Your task to perform on an android device: View the shopping cart on walmart. Search for razer blade on walmart, select the first entry, add it to the cart, then select checkout. Image 0: 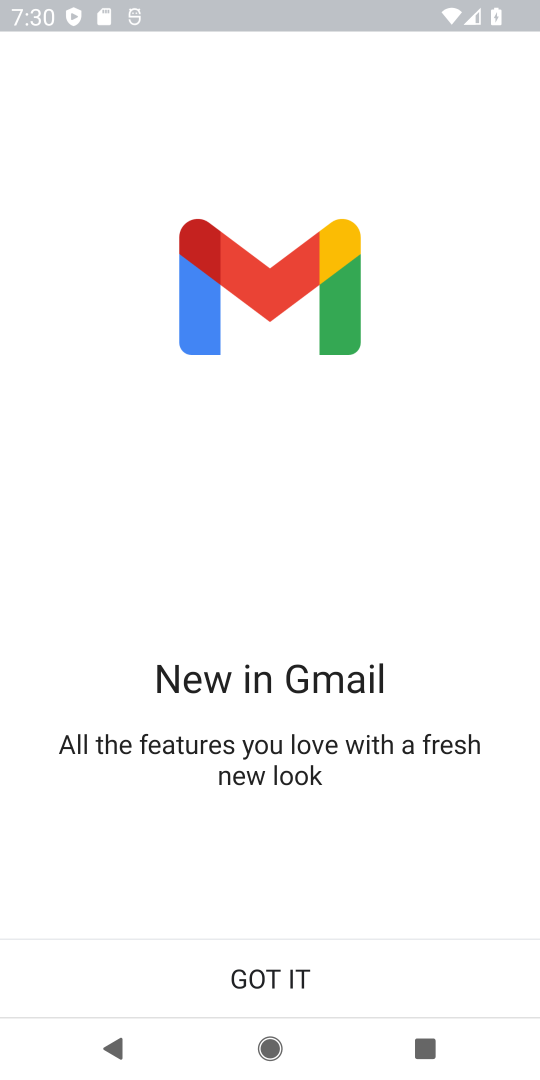
Step 0: press home button
Your task to perform on an android device: View the shopping cart on walmart. Search for razer blade on walmart, select the first entry, add it to the cart, then select checkout. Image 1: 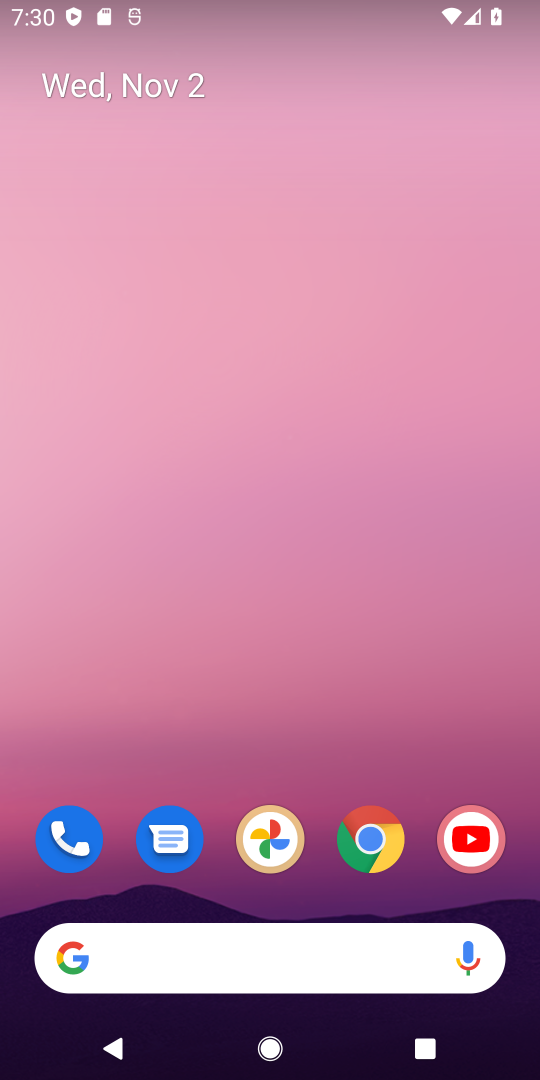
Step 1: click (373, 838)
Your task to perform on an android device: View the shopping cart on walmart. Search for razer blade on walmart, select the first entry, add it to the cart, then select checkout. Image 2: 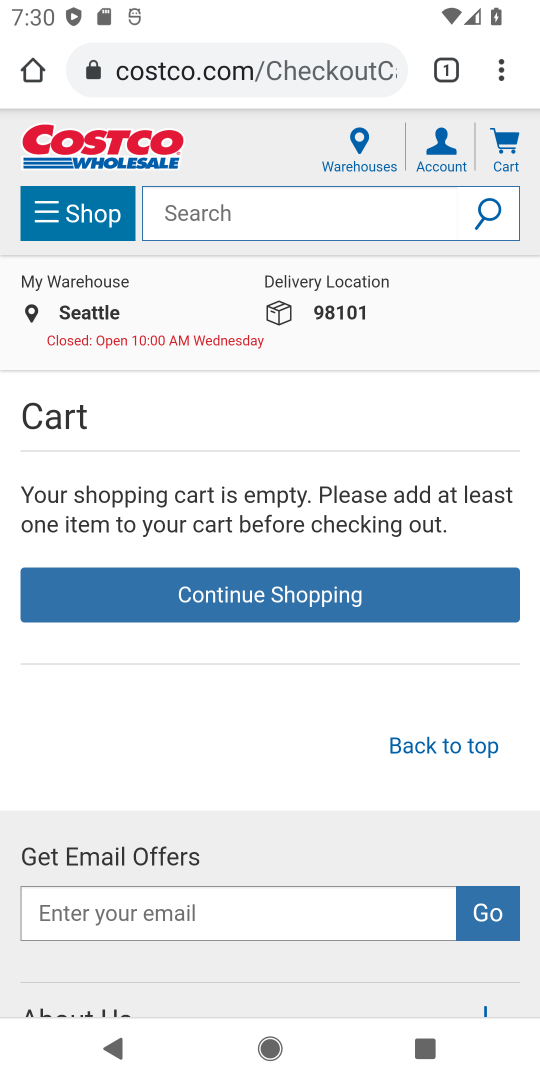
Step 2: click (244, 75)
Your task to perform on an android device: View the shopping cart on walmart. Search for razer blade on walmart, select the first entry, add it to the cart, then select checkout. Image 3: 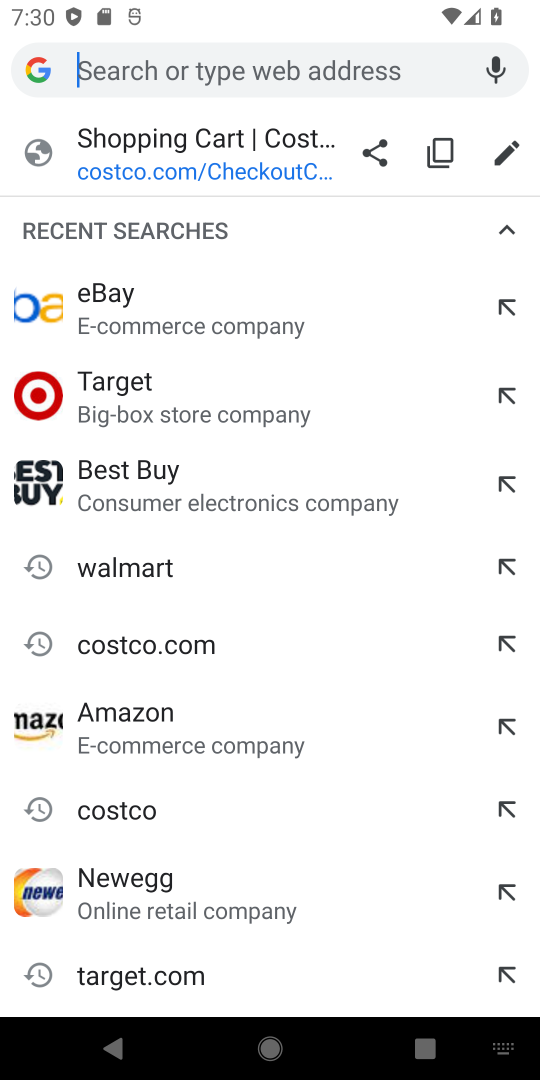
Step 3: type "walmart"
Your task to perform on an android device: View the shopping cart on walmart. Search for razer blade on walmart, select the first entry, add it to the cart, then select checkout. Image 4: 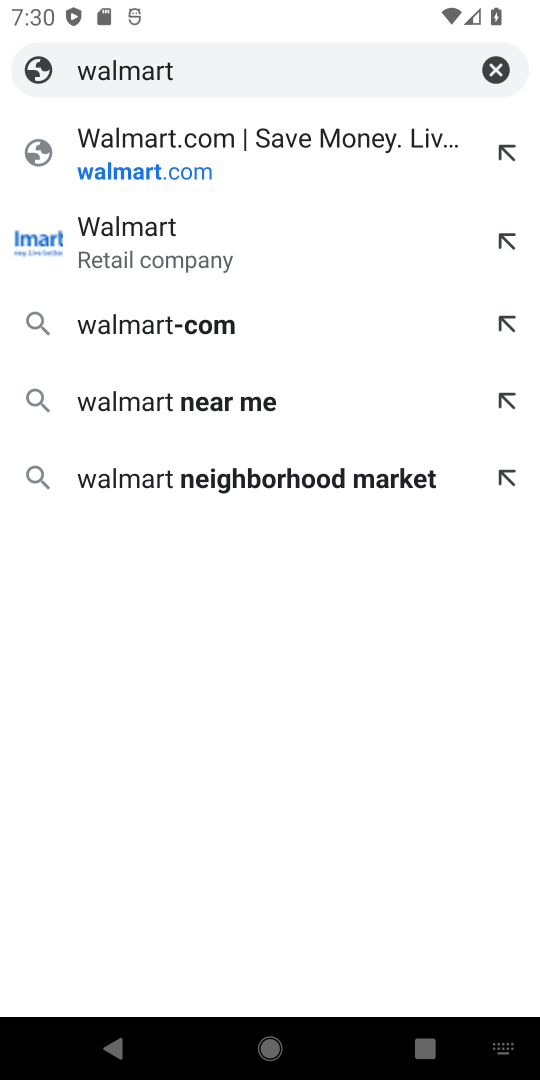
Step 4: click (228, 235)
Your task to perform on an android device: View the shopping cart on walmart. Search for razer blade on walmart, select the first entry, add it to the cart, then select checkout. Image 5: 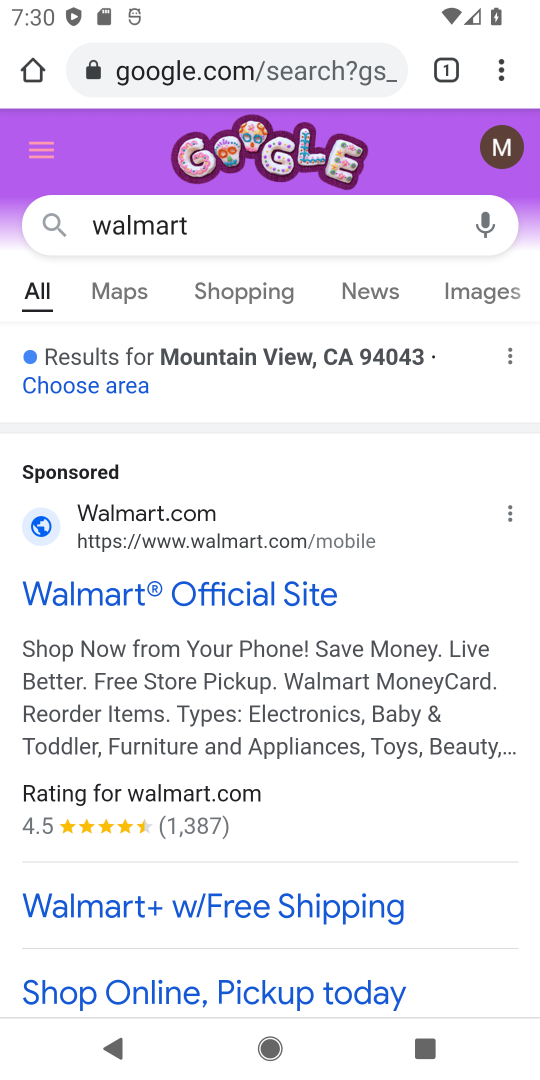
Step 5: drag from (355, 801) to (366, 337)
Your task to perform on an android device: View the shopping cart on walmart. Search for razer blade on walmart, select the first entry, add it to the cart, then select checkout. Image 6: 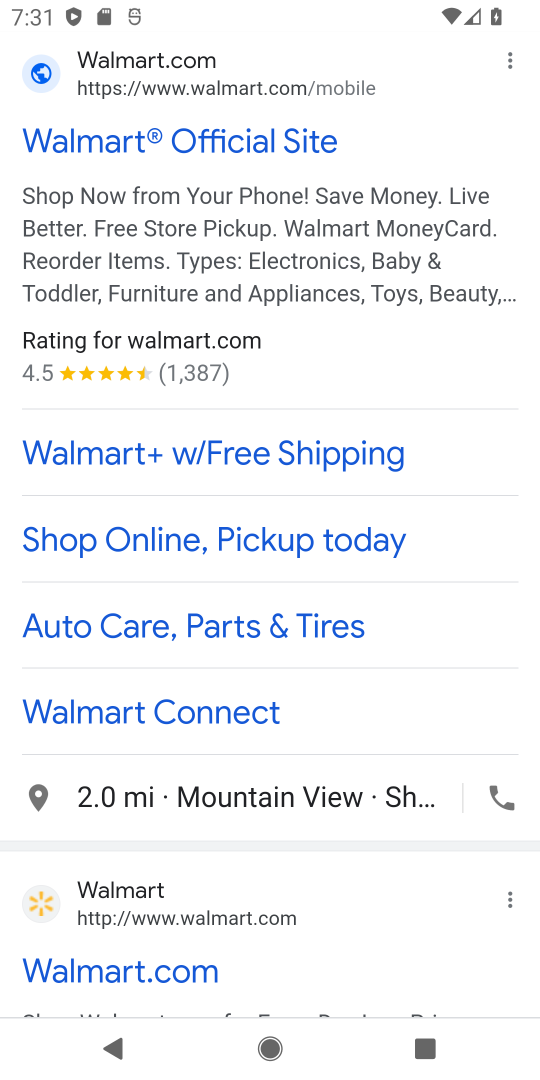
Step 6: drag from (303, 895) to (336, 599)
Your task to perform on an android device: View the shopping cart on walmart. Search for razer blade on walmart, select the first entry, add it to the cart, then select checkout. Image 7: 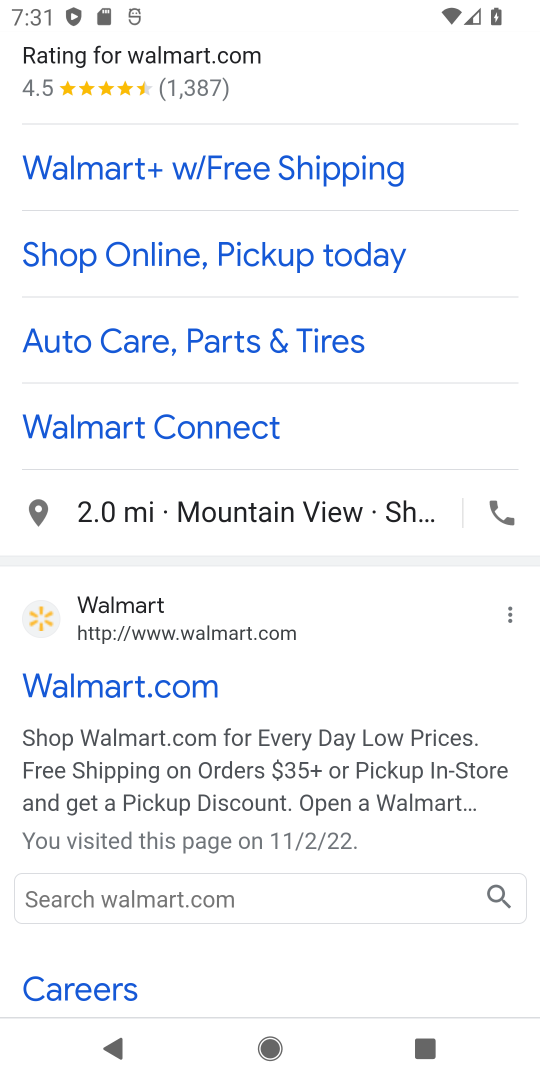
Step 7: click (266, 668)
Your task to perform on an android device: View the shopping cart on walmart. Search for razer blade on walmart, select the first entry, add it to the cart, then select checkout. Image 8: 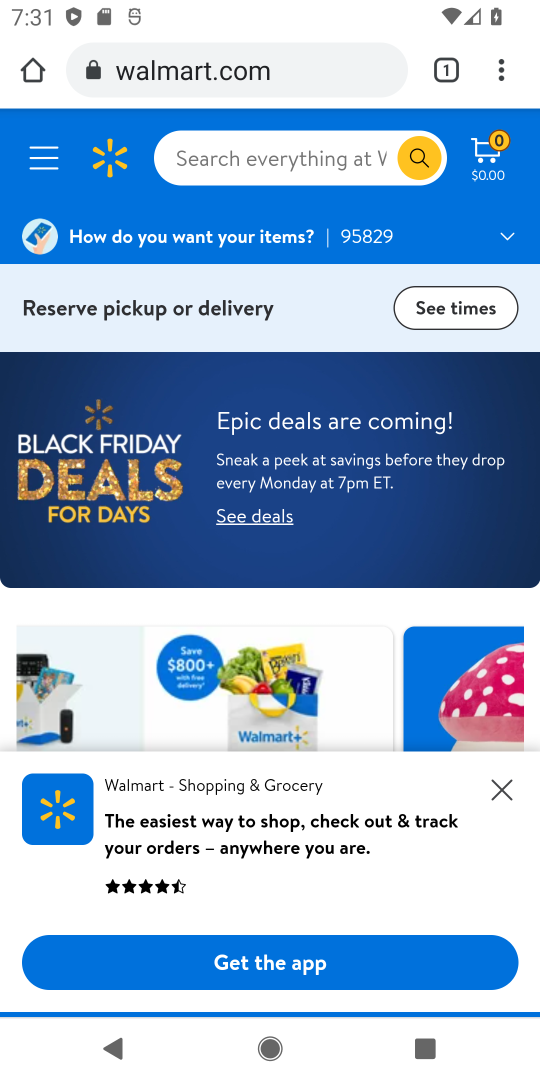
Step 8: click (487, 152)
Your task to perform on an android device: View the shopping cart on walmart. Search for razer blade on walmart, select the first entry, add it to the cart, then select checkout. Image 9: 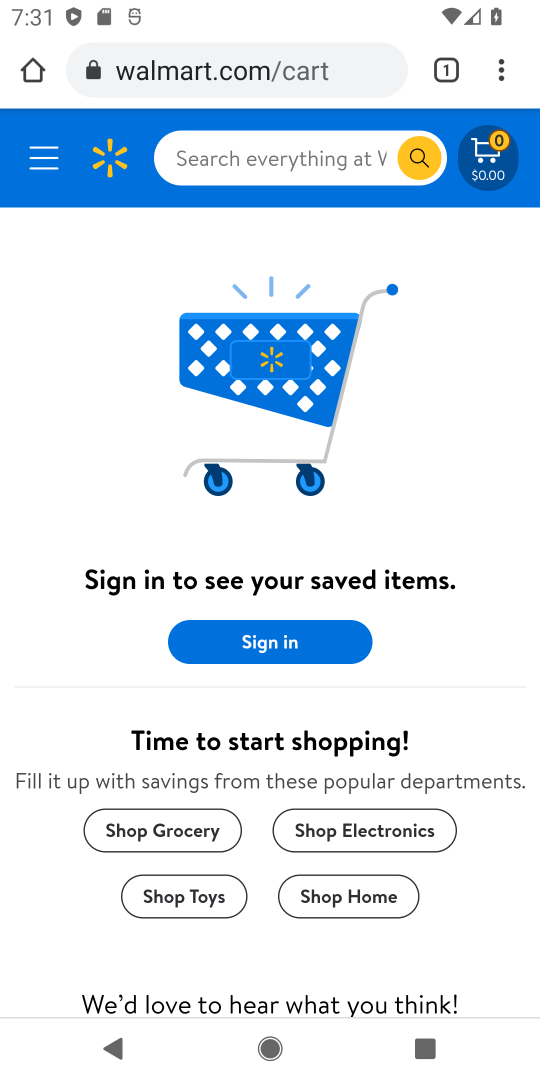
Step 9: click (332, 164)
Your task to perform on an android device: View the shopping cart on walmart. Search for razer blade on walmart, select the first entry, add it to the cart, then select checkout. Image 10: 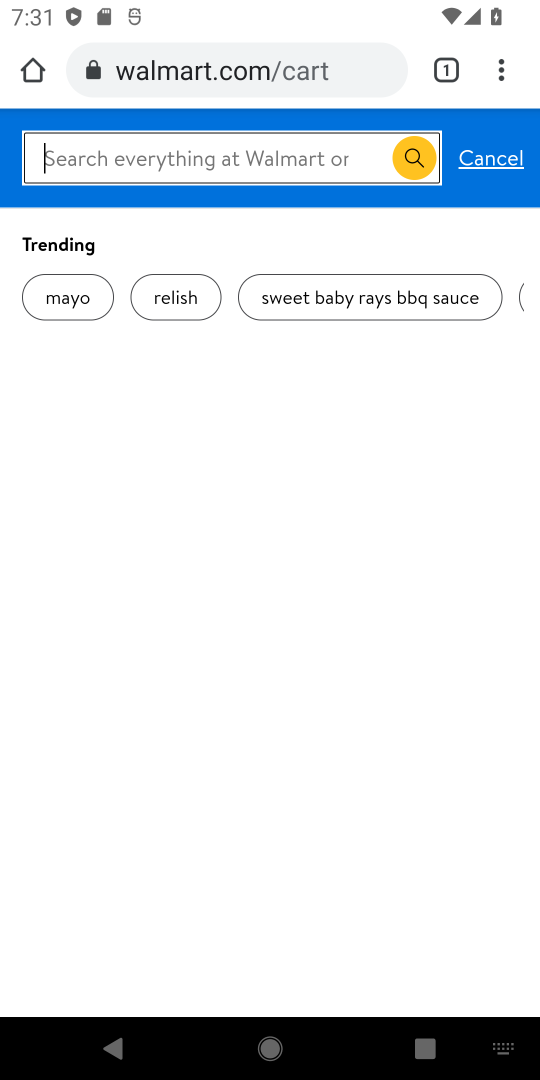
Step 10: type "razer blade"
Your task to perform on an android device: View the shopping cart on walmart. Search for razer blade on walmart, select the first entry, add it to the cart, then select checkout. Image 11: 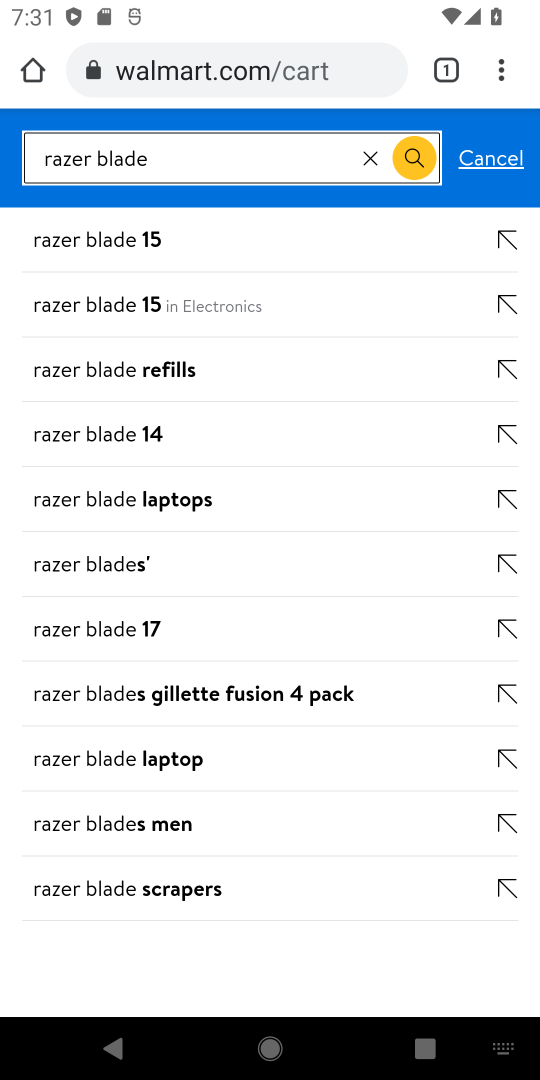
Step 11: click (410, 150)
Your task to perform on an android device: View the shopping cart on walmart. Search for razer blade on walmart, select the first entry, add it to the cart, then select checkout. Image 12: 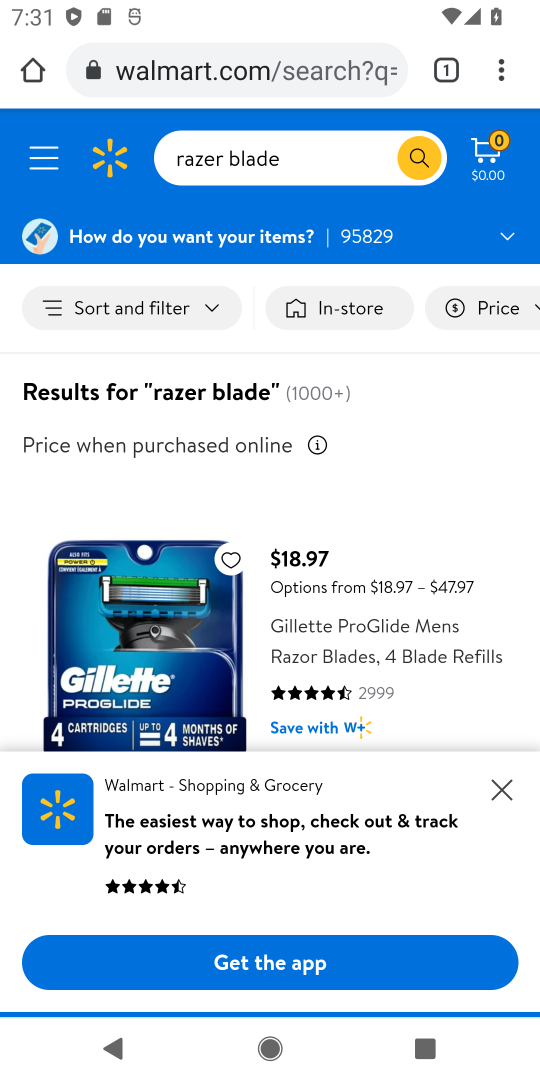
Step 12: click (497, 785)
Your task to perform on an android device: View the shopping cart on walmart. Search for razer blade on walmart, select the first entry, add it to the cart, then select checkout. Image 13: 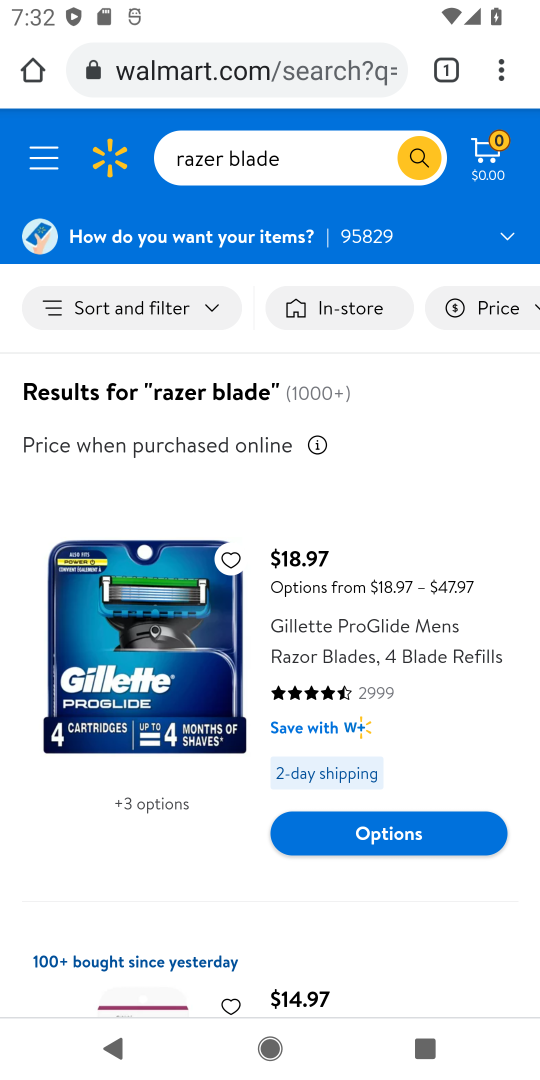
Step 13: click (353, 623)
Your task to perform on an android device: View the shopping cart on walmart. Search for razer blade on walmart, select the first entry, add it to the cart, then select checkout. Image 14: 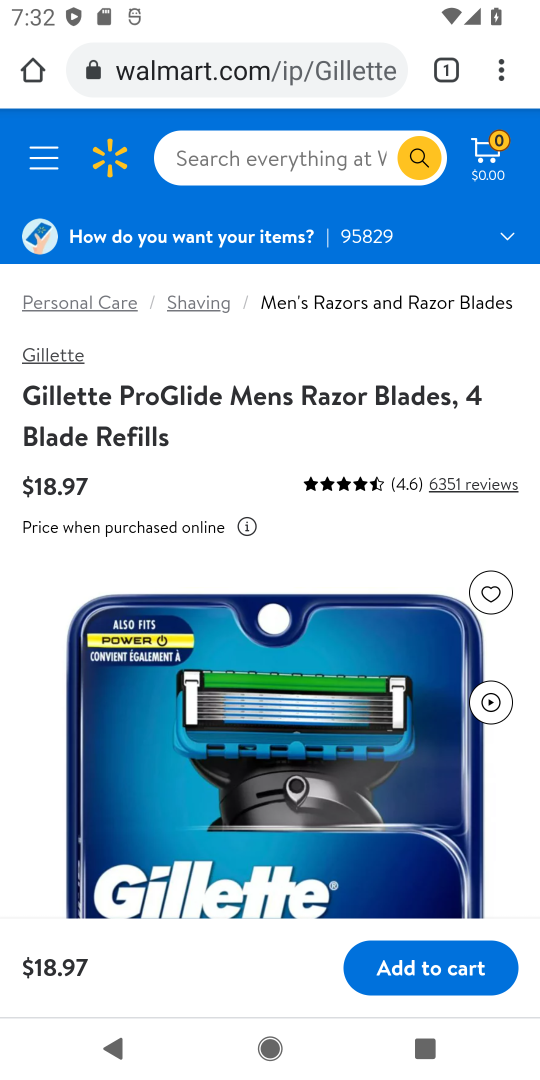
Step 14: click (433, 972)
Your task to perform on an android device: View the shopping cart on walmart. Search for razer blade on walmart, select the first entry, add it to the cart, then select checkout. Image 15: 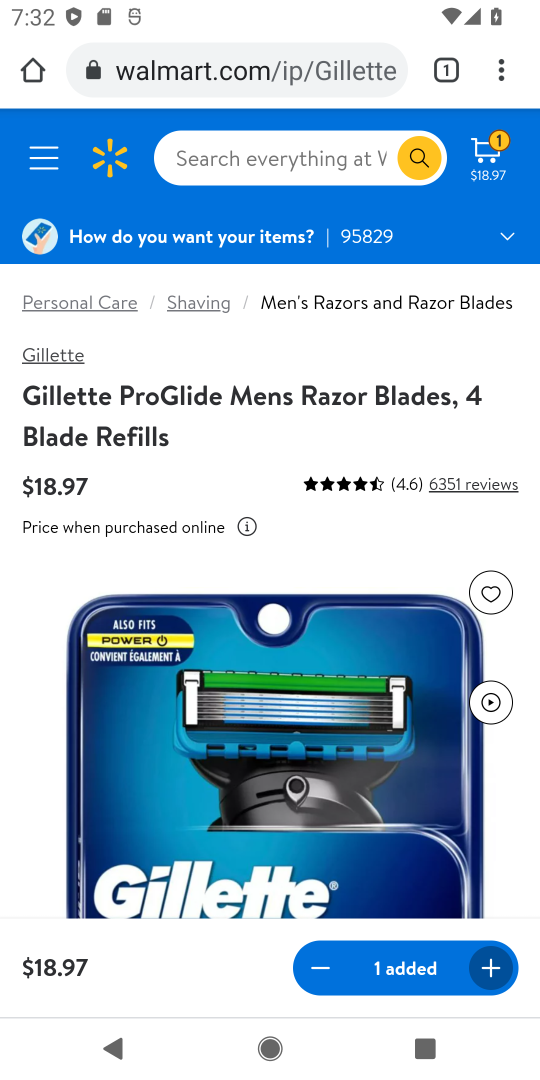
Step 15: click (485, 152)
Your task to perform on an android device: View the shopping cart on walmart. Search for razer blade on walmart, select the first entry, add it to the cart, then select checkout. Image 16: 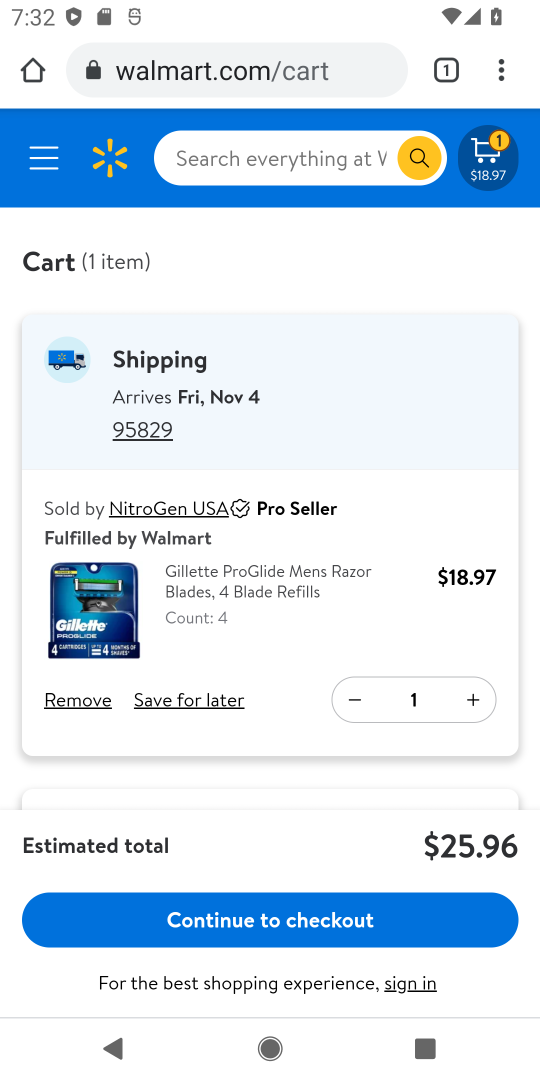
Step 16: click (274, 923)
Your task to perform on an android device: View the shopping cart on walmart. Search for razer blade on walmart, select the first entry, add it to the cart, then select checkout. Image 17: 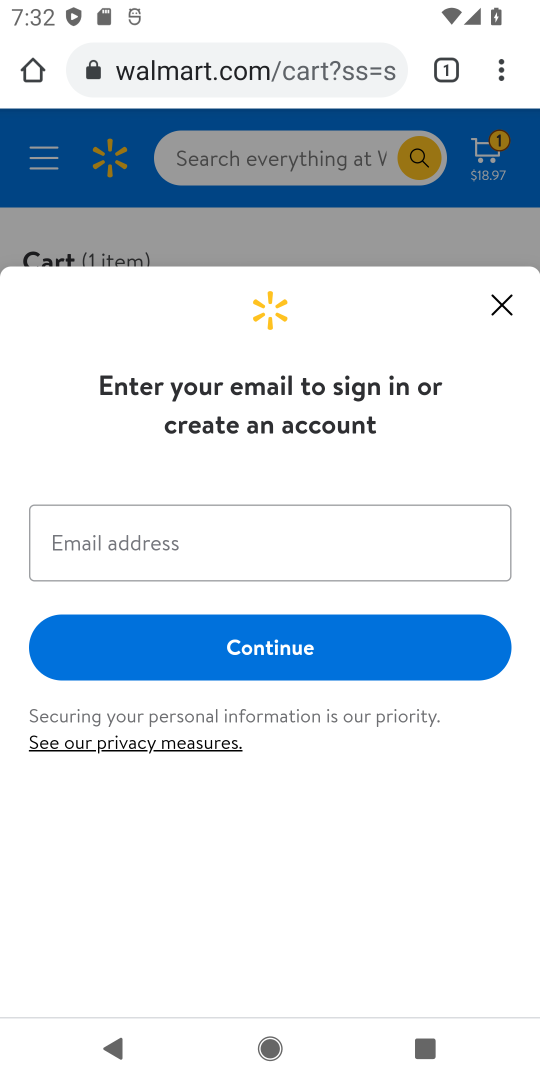
Step 17: task complete